Your task to perform on an android device: change notification settings in the gmail app Image 0: 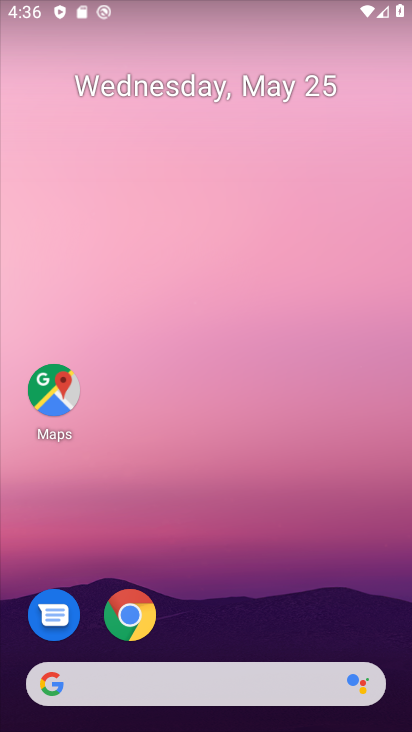
Step 0: drag from (224, 616) to (192, 191)
Your task to perform on an android device: change notification settings in the gmail app Image 1: 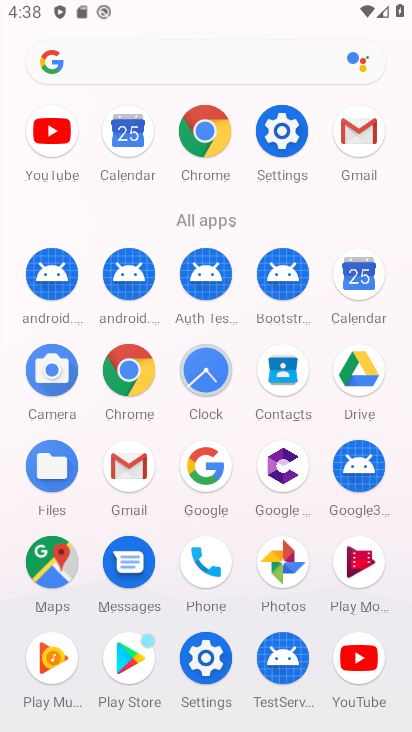
Step 1: click (124, 479)
Your task to perform on an android device: change notification settings in the gmail app Image 2: 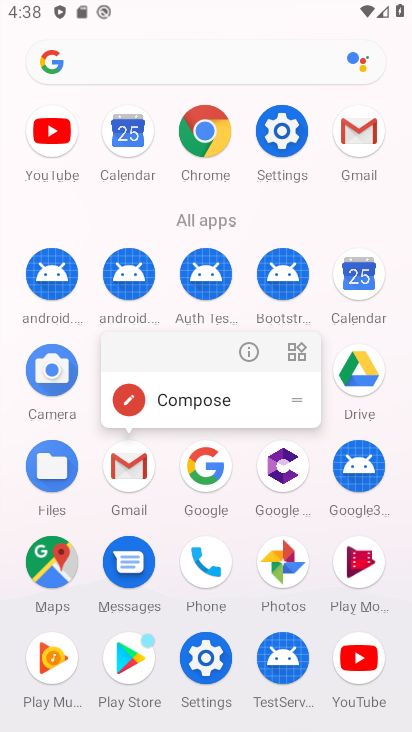
Step 2: click (249, 355)
Your task to perform on an android device: change notification settings in the gmail app Image 3: 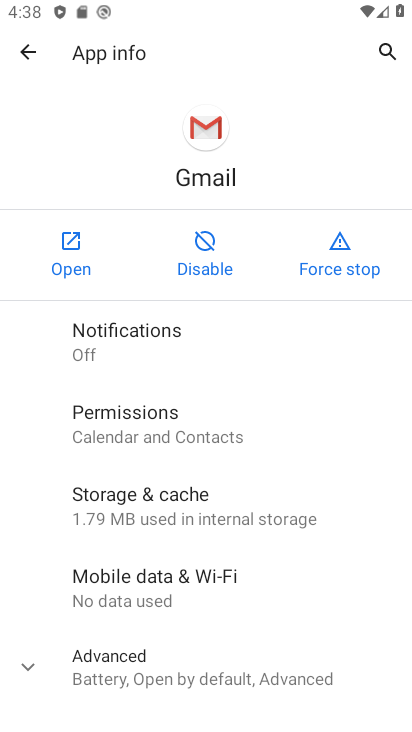
Step 3: click (102, 340)
Your task to perform on an android device: change notification settings in the gmail app Image 4: 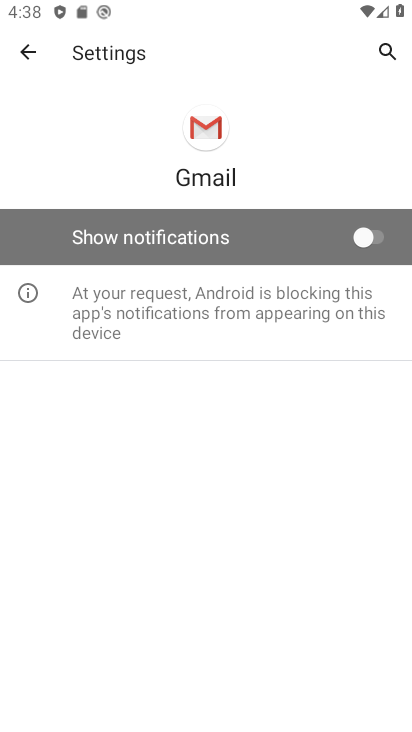
Step 4: click (274, 223)
Your task to perform on an android device: change notification settings in the gmail app Image 5: 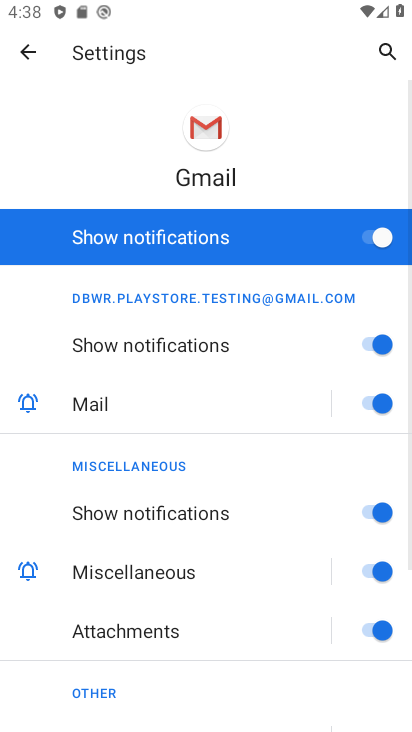
Step 5: task complete